Your task to perform on an android device: Go to privacy settings Image 0: 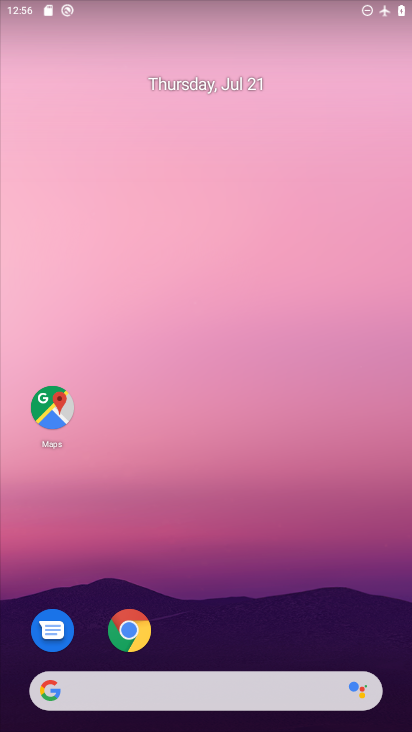
Step 0: click (131, 631)
Your task to perform on an android device: Go to privacy settings Image 1: 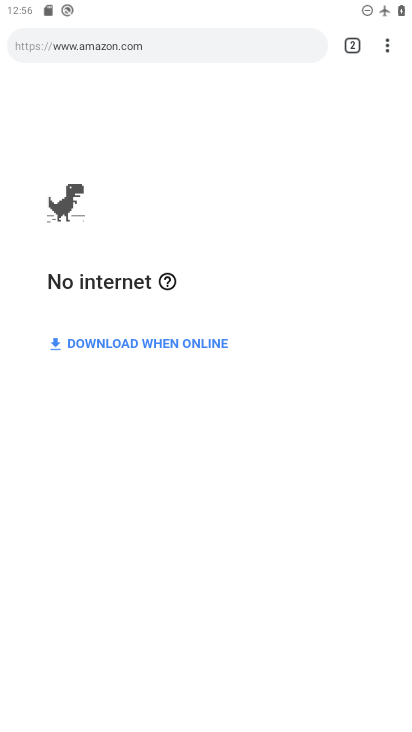
Step 1: press home button
Your task to perform on an android device: Go to privacy settings Image 2: 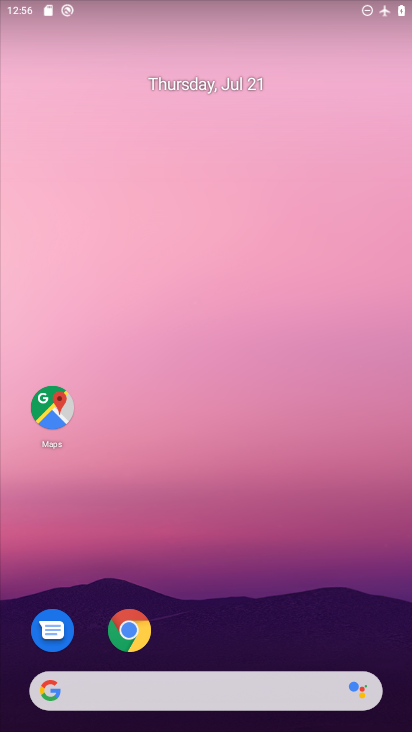
Step 2: drag from (404, 684) to (409, 375)
Your task to perform on an android device: Go to privacy settings Image 3: 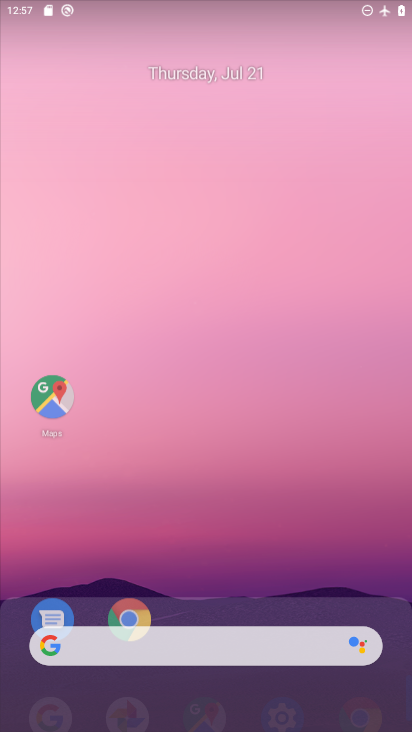
Step 3: drag from (336, 235) to (352, 97)
Your task to perform on an android device: Go to privacy settings Image 4: 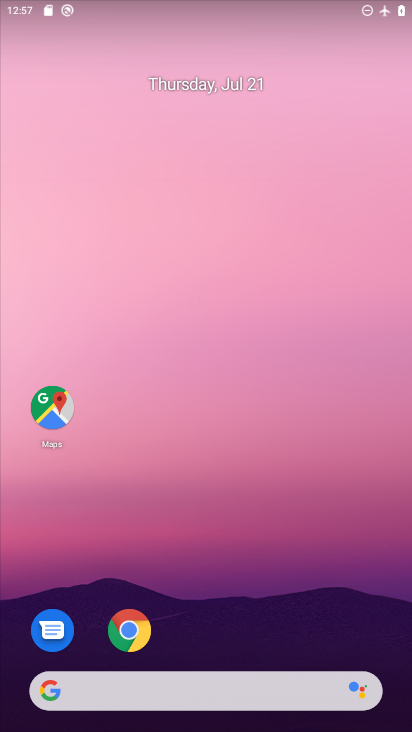
Step 4: drag from (377, 720) to (365, 65)
Your task to perform on an android device: Go to privacy settings Image 5: 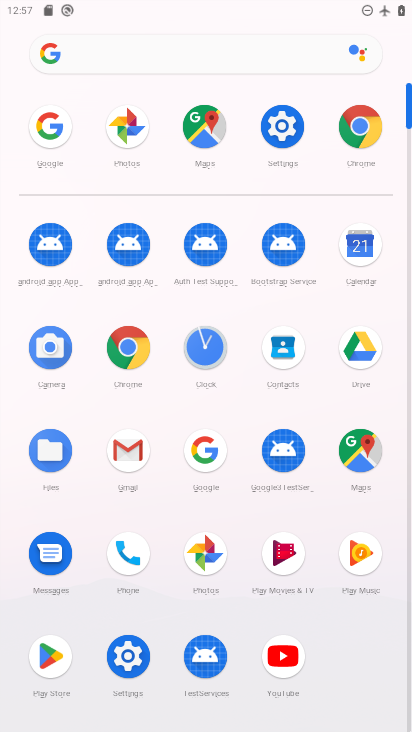
Step 5: click (136, 646)
Your task to perform on an android device: Go to privacy settings Image 6: 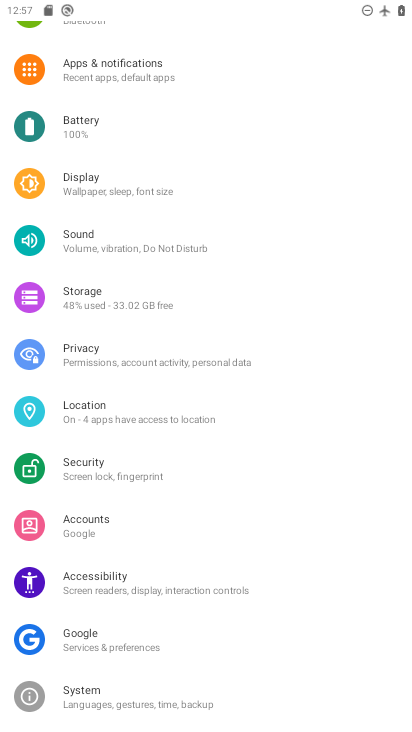
Step 6: click (79, 345)
Your task to perform on an android device: Go to privacy settings Image 7: 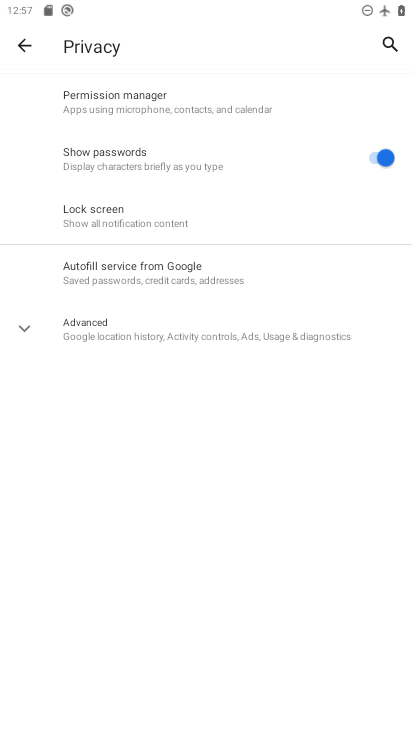
Step 7: click (36, 326)
Your task to perform on an android device: Go to privacy settings Image 8: 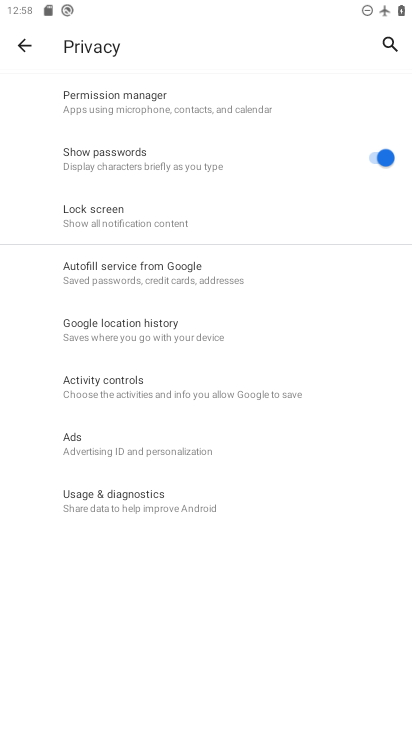
Step 8: task complete